Your task to perform on an android device: Go to ESPN.com Image 0: 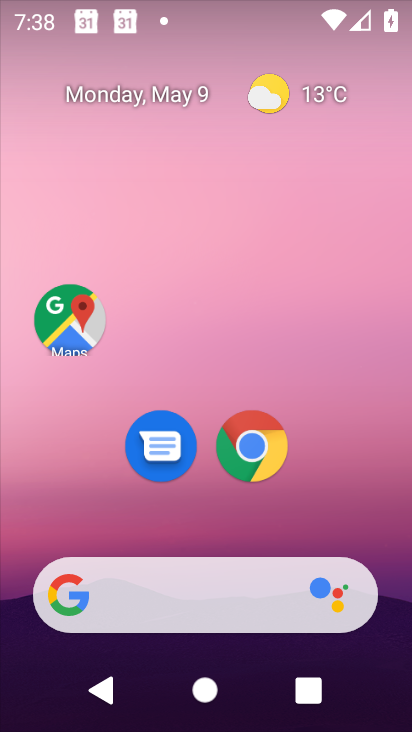
Step 0: click (253, 460)
Your task to perform on an android device: Go to ESPN.com Image 1: 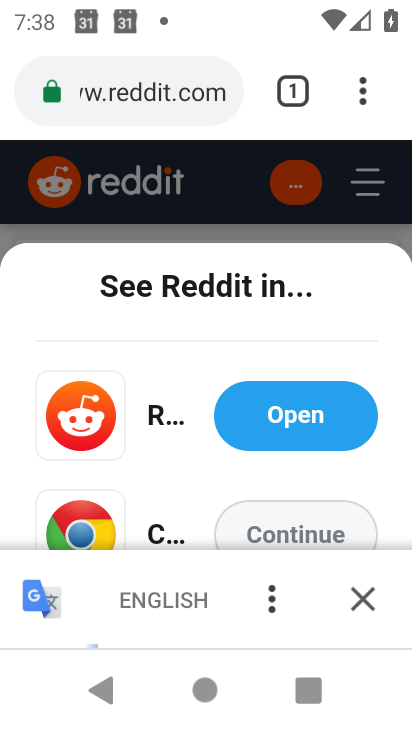
Step 1: click (153, 98)
Your task to perform on an android device: Go to ESPN.com Image 2: 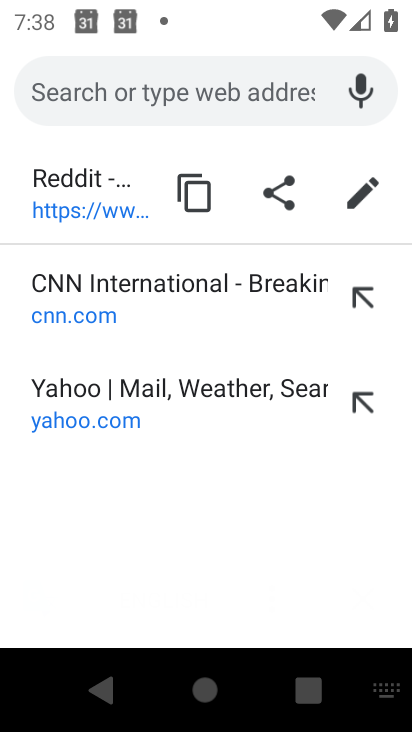
Step 2: type "ESPN.com"
Your task to perform on an android device: Go to ESPN.com Image 3: 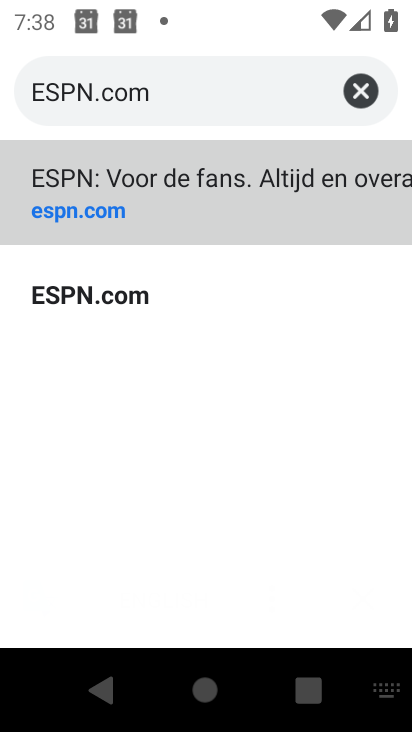
Step 3: click (113, 214)
Your task to perform on an android device: Go to ESPN.com Image 4: 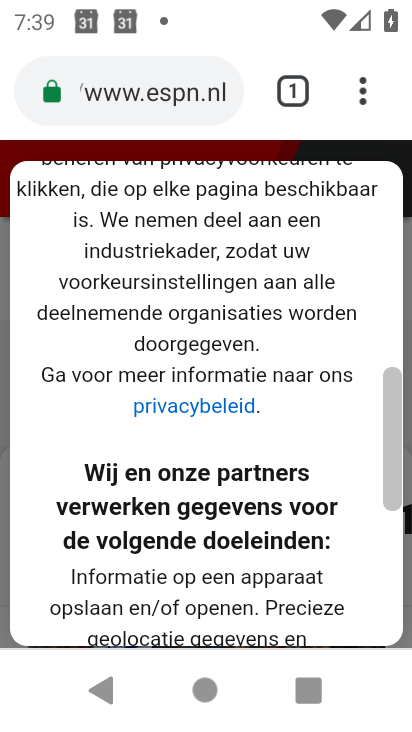
Step 4: task complete